Your task to perform on an android device: open app "Google Play services" Image 0: 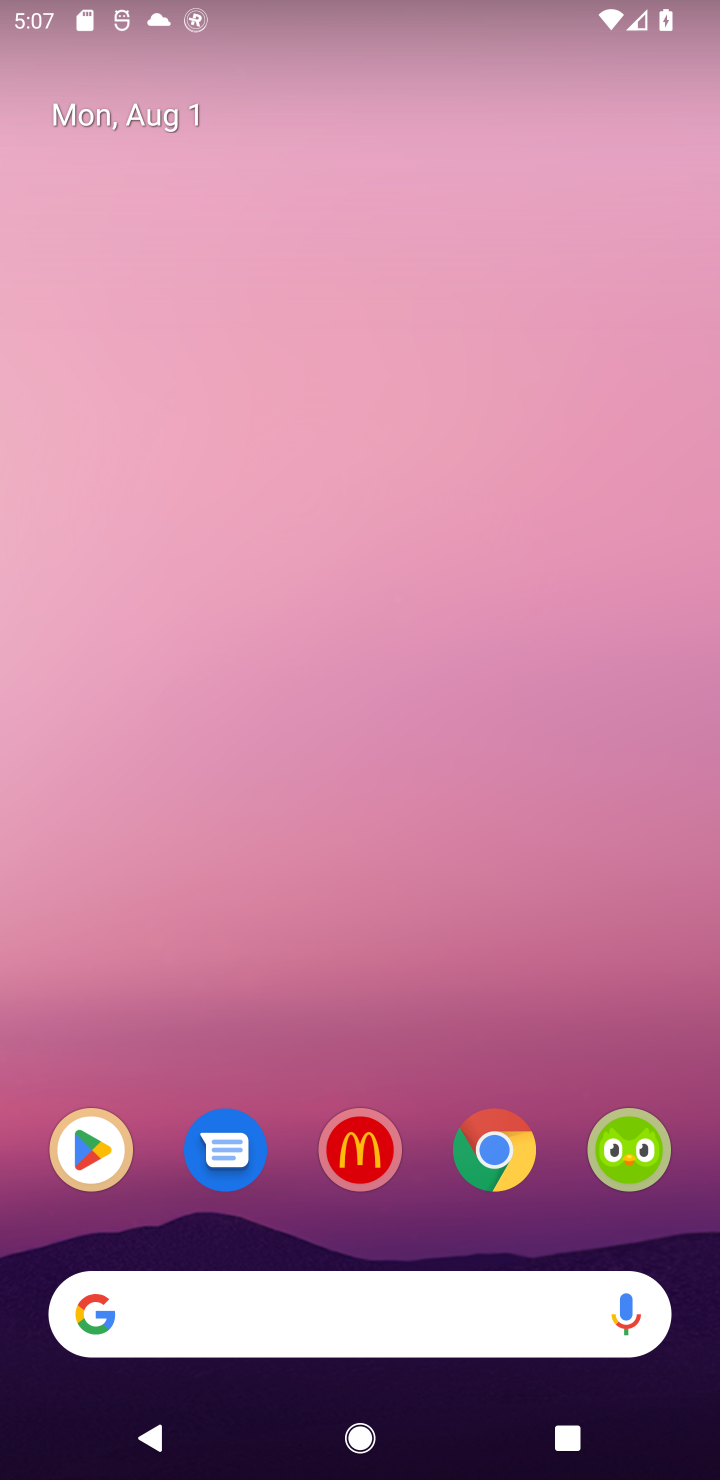
Step 0: click (112, 1133)
Your task to perform on an android device: open app "Google Play services" Image 1: 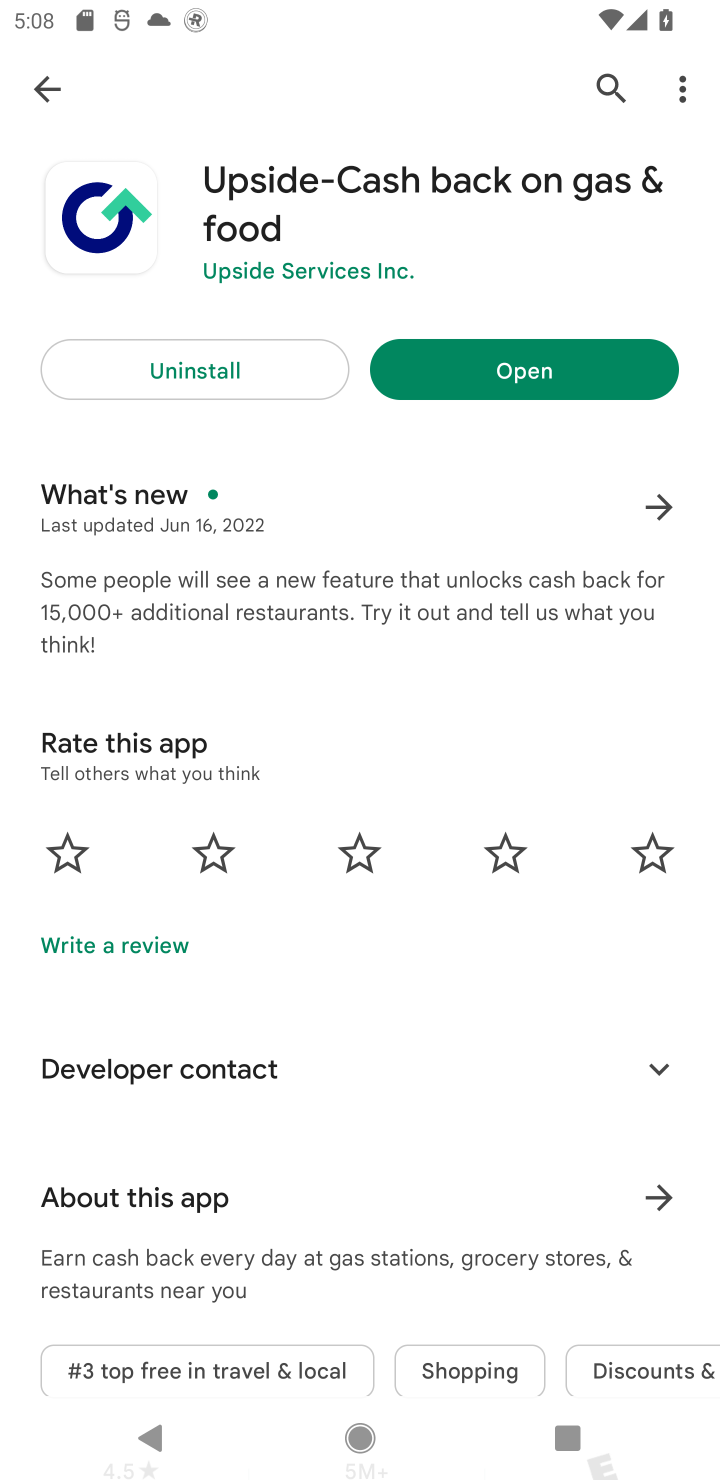
Step 1: task complete